Your task to perform on an android device: check android version Image 0: 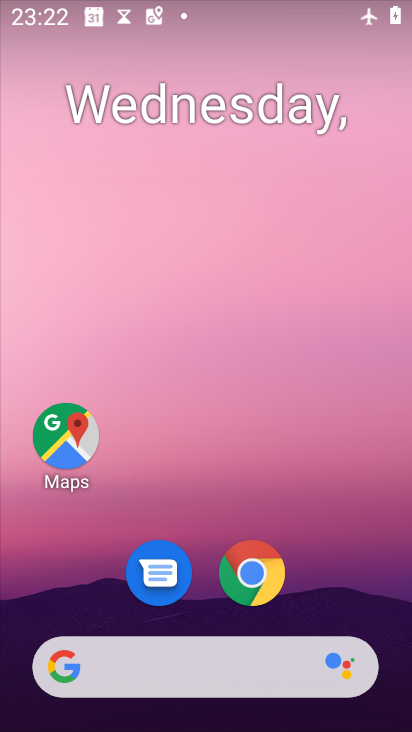
Step 0: drag from (329, 466) to (344, 216)
Your task to perform on an android device: check android version Image 1: 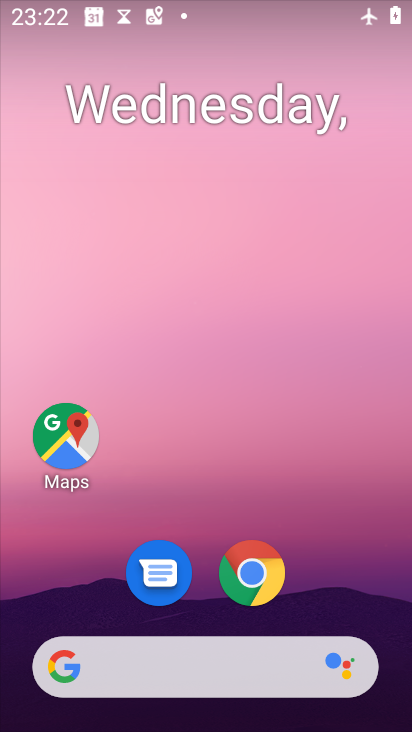
Step 1: drag from (339, 593) to (333, 249)
Your task to perform on an android device: check android version Image 2: 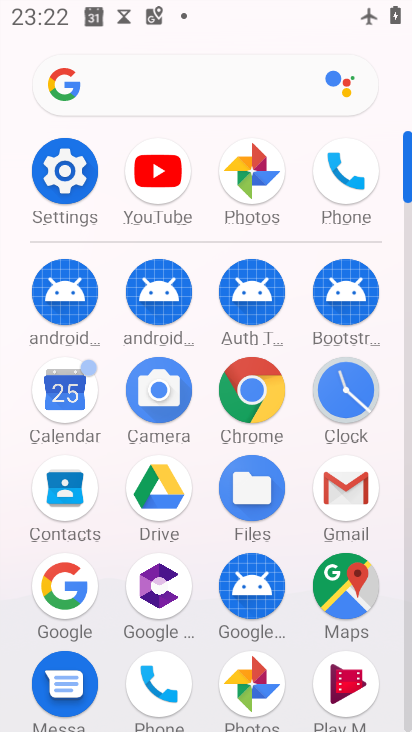
Step 2: click (58, 163)
Your task to perform on an android device: check android version Image 3: 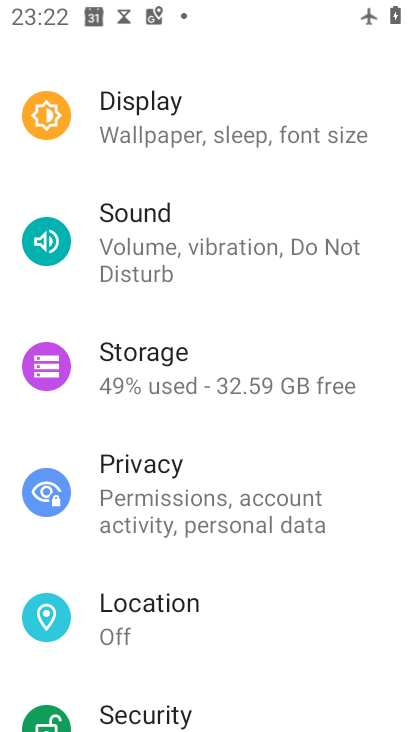
Step 3: drag from (252, 583) to (300, 204)
Your task to perform on an android device: check android version Image 4: 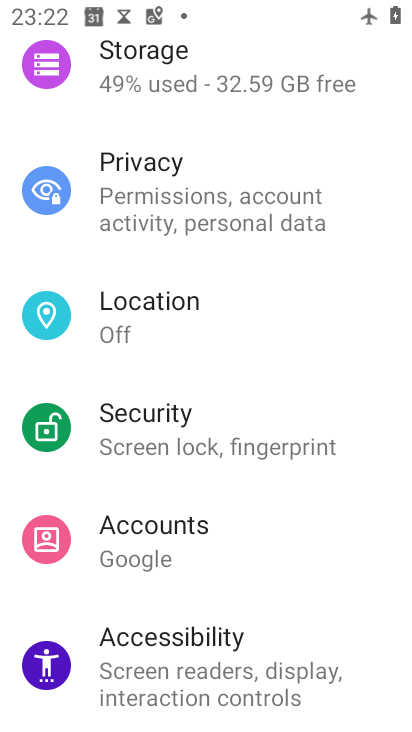
Step 4: drag from (235, 622) to (278, 224)
Your task to perform on an android device: check android version Image 5: 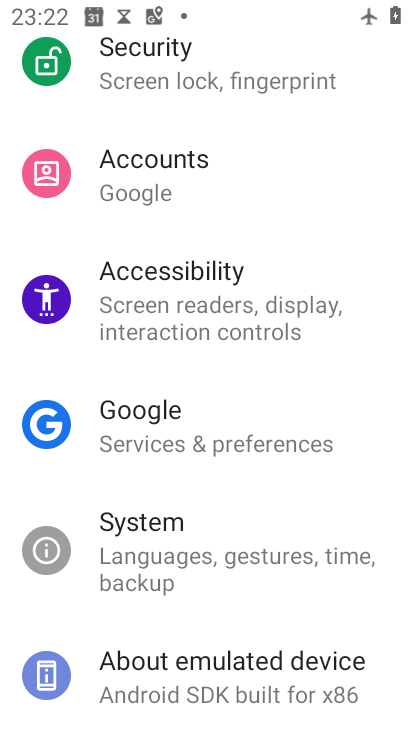
Step 5: click (227, 675)
Your task to perform on an android device: check android version Image 6: 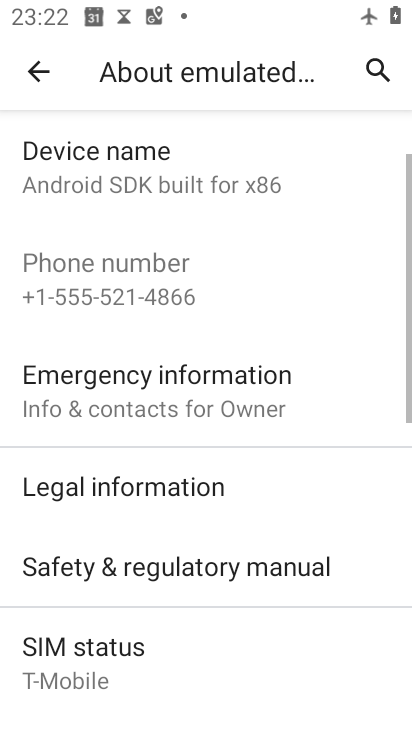
Step 6: task complete